Your task to perform on an android device: check storage Image 0: 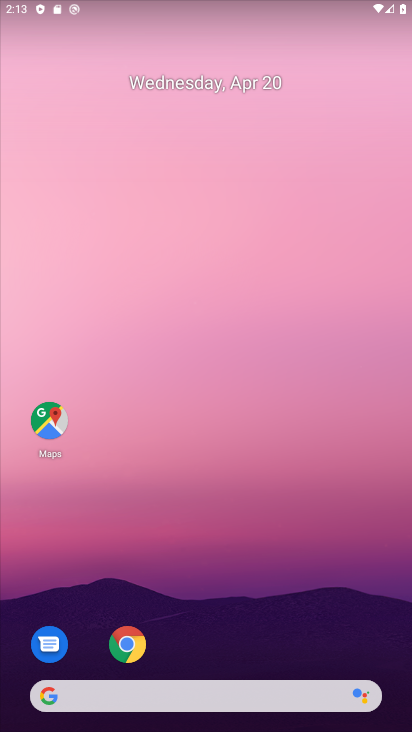
Step 0: drag from (315, 633) to (230, 150)
Your task to perform on an android device: check storage Image 1: 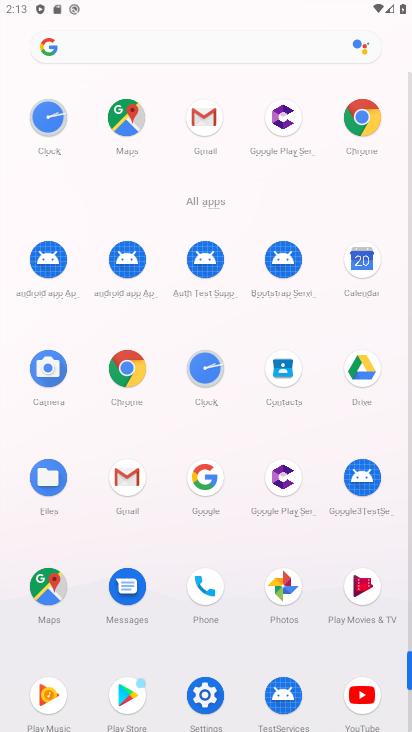
Step 1: click (203, 696)
Your task to perform on an android device: check storage Image 2: 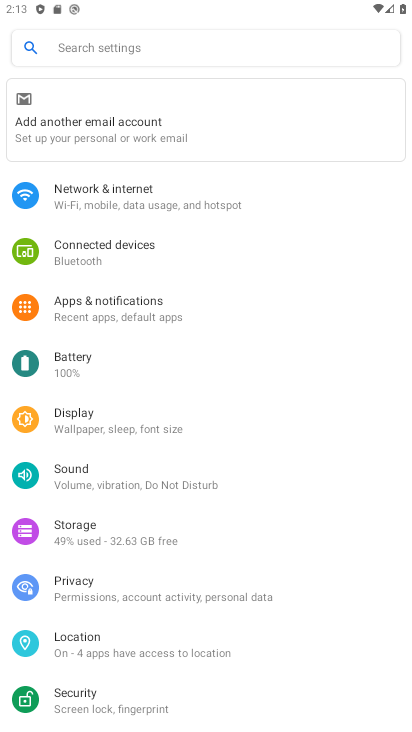
Step 2: click (116, 526)
Your task to perform on an android device: check storage Image 3: 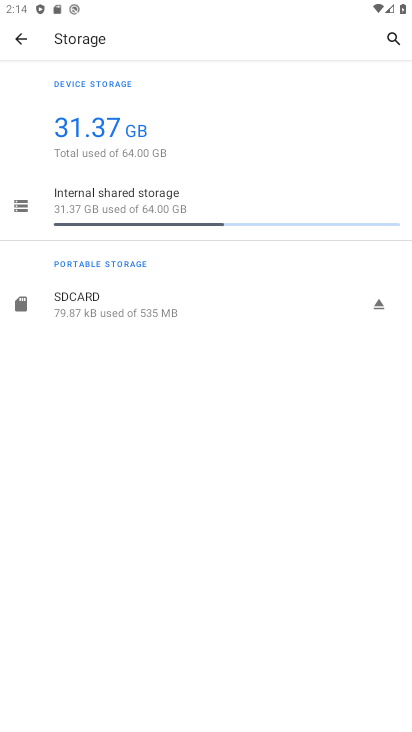
Step 3: task complete